Your task to perform on an android device: Open display settings Image 0: 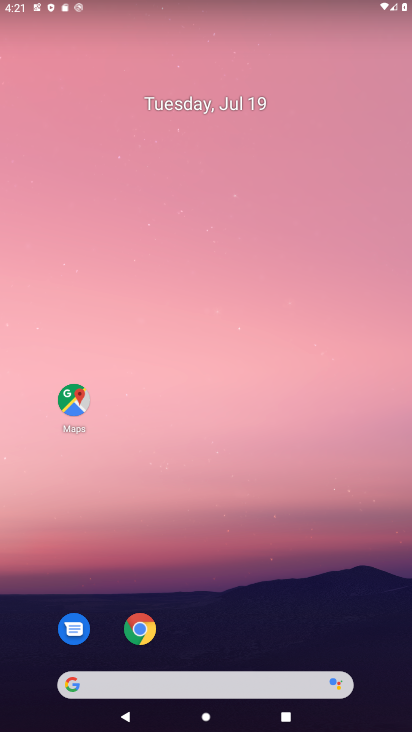
Step 0: drag from (229, 672) to (245, 91)
Your task to perform on an android device: Open display settings Image 1: 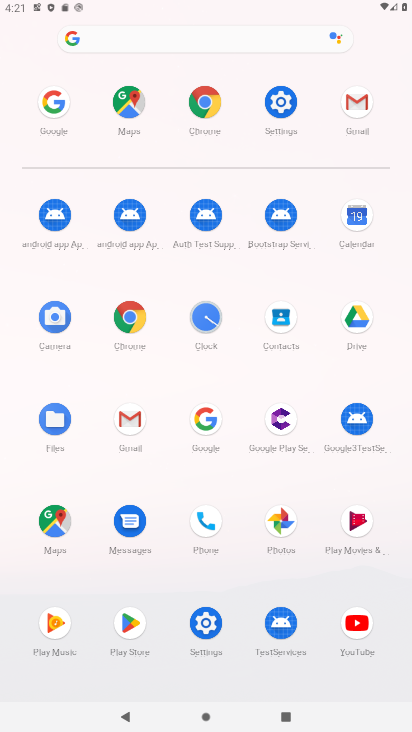
Step 1: click (284, 101)
Your task to perform on an android device: Open display settings Image 2: 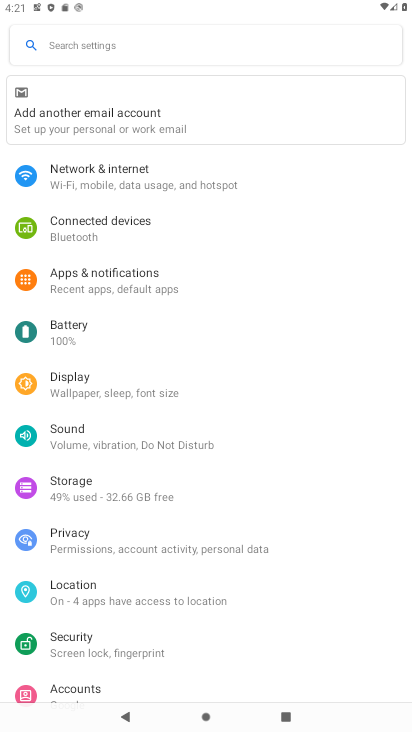
Step 2: click (81, 390)
Your task to perform on an android device: Open display settings Image 3: 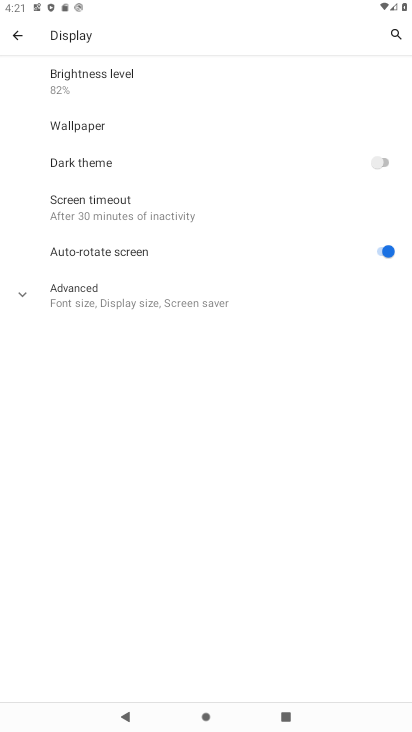
Step 3: click (82, 295)
Your task to perform on an android device: Open display settings Image 4: 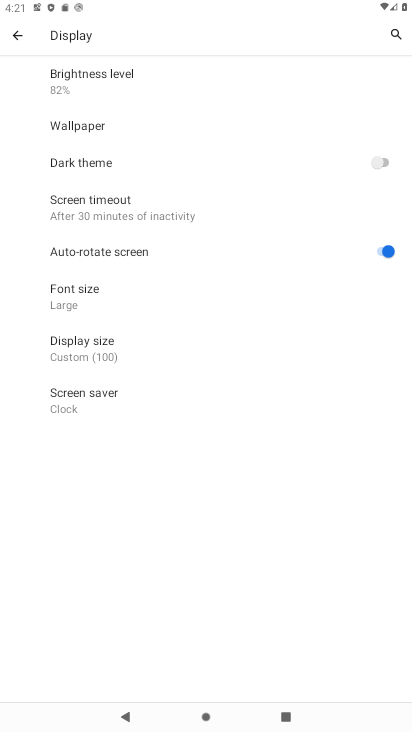
Step 4: task complete